Your task to perform on an android device: remove spam from my inbox in the gmail app Image 0: 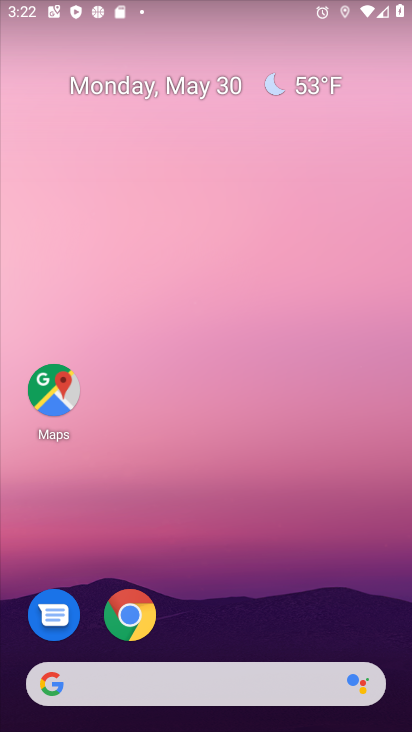
Step 0: drag from (359, 567) to (338, 295)
Your task to perform on an android device: remove spam from my inbox in the gmail app Image 1: 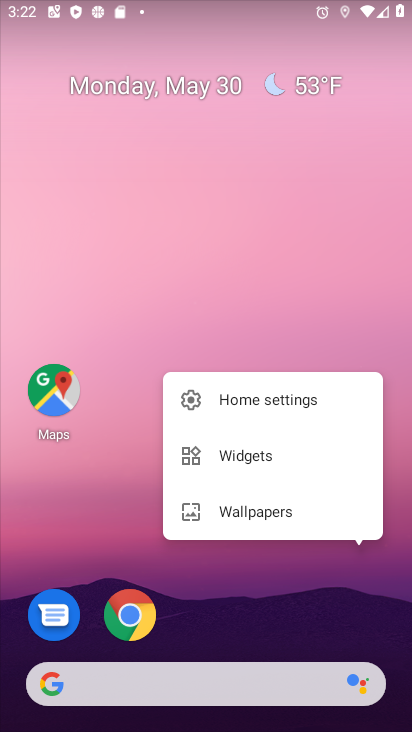
Step 1: drag from (123, 341) to (145, 121)
Your task to perform on an android device: remove spam from my inbox in the gmail app Image 2: 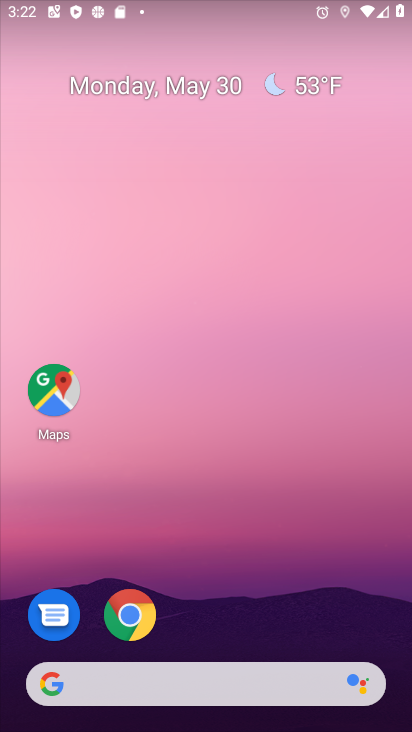
Step 2: drag from (235, 612) to (252, 167)
Your task to perform on an android device: remove spam from my inbox in the gmail app Image 3: 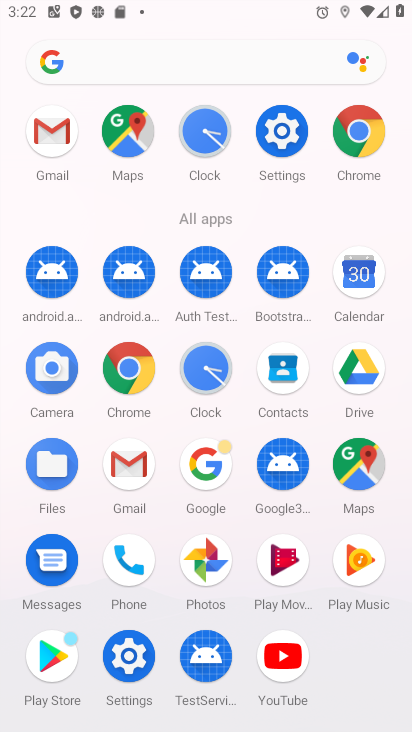
Step 3: click (114, 479)
Your task to perform on an android device: remove spam from my inbox in the gmail app Image 4: 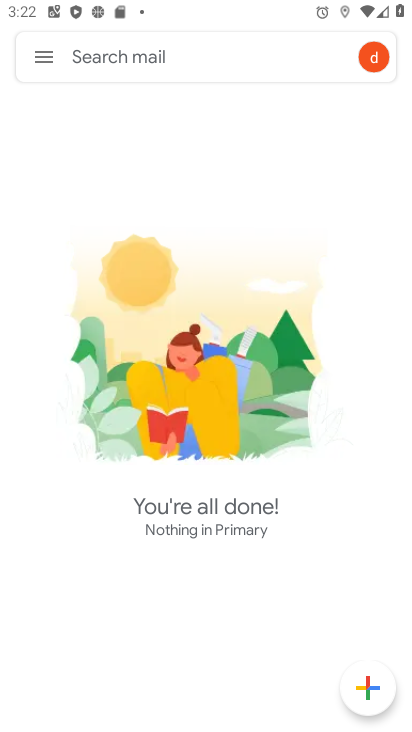
Step 4: click (50, 74)
Your task to perform on an android device: remove spam from my inbox in the gmail app Image 5: 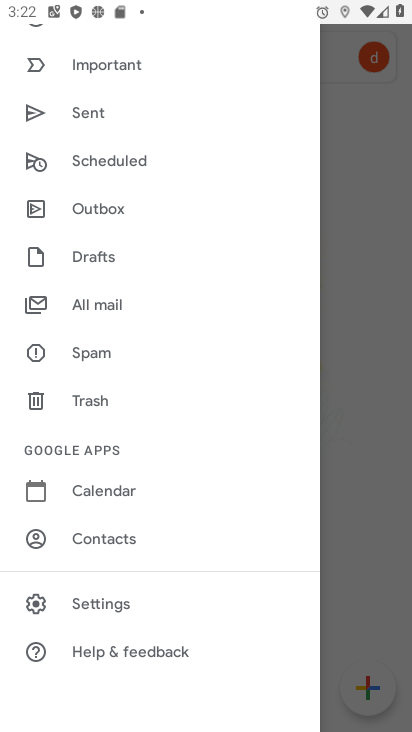
Step 5: click (130, 348)
Your task to perform on an android device: remove spam from my inbox in the gmail app Image 6: 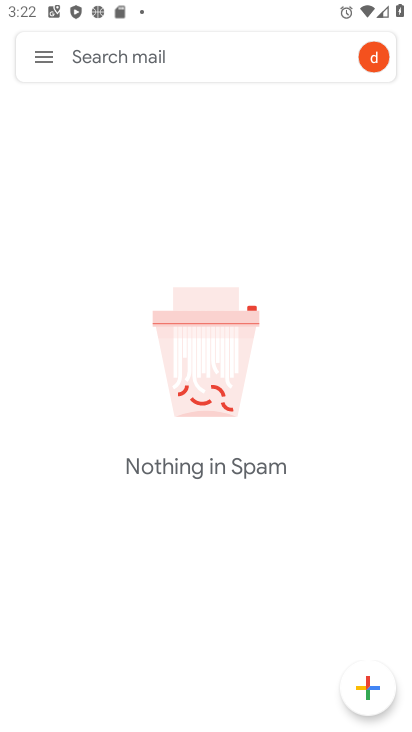
Step 6: task complete